Your task to perform on an android device: open a bookmark in the chrome app Image 0: 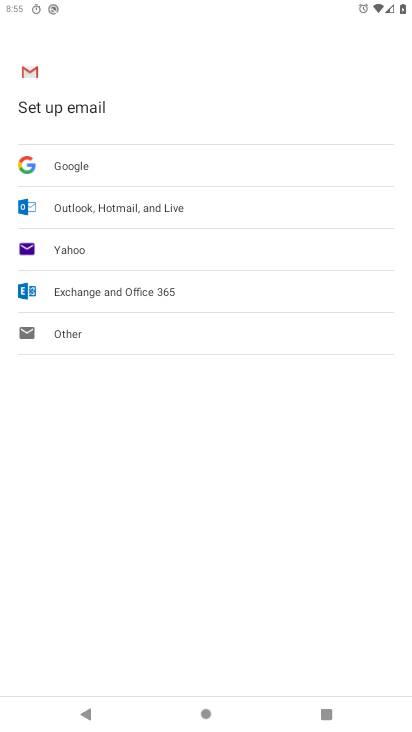
Step 0: press home button
Your task to perform on an android device: open a bookmark in the chrome app Image 1: 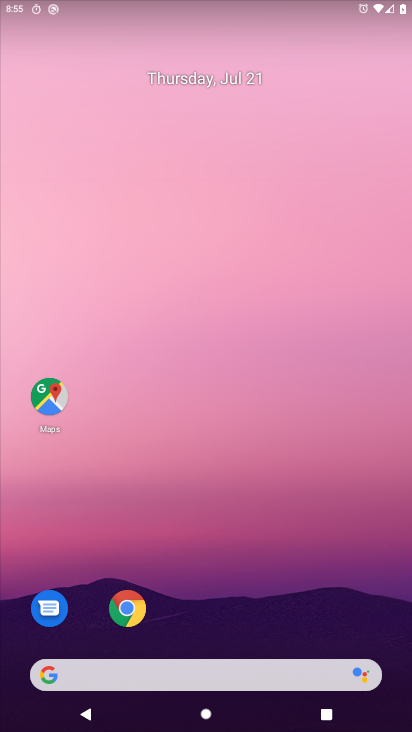
Step 1: click (122, 602)
Your task to perform on an android device: open a bookmark in the chrome app Image 2: 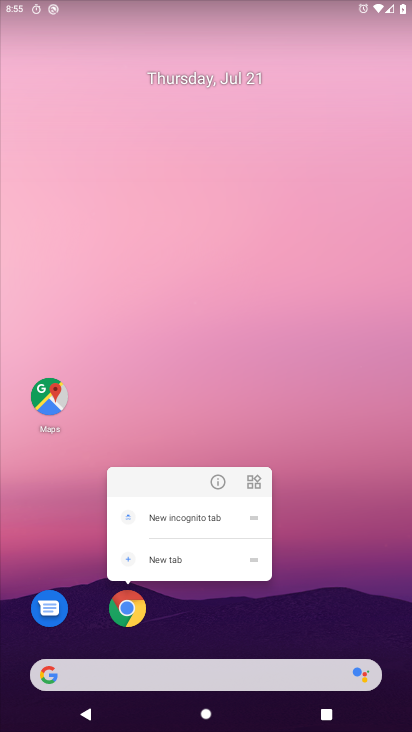
Step 2: click (120, 603)
Your task to perform on an android device: open a bookmark in the chrome app Image 3: 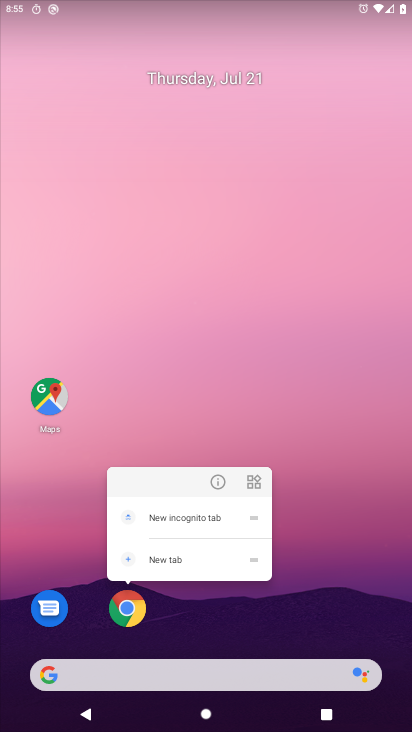
Step 3: click (154, 621)
Your task to perform on an android device: open a bookmark in the chrome app Image 4: 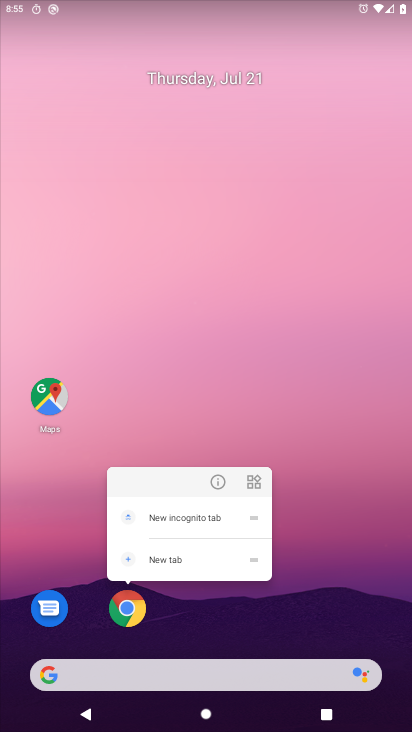
Step 4: click (117, 608)
Your task to perform on an android device: open a bookmark in the chrome app Image 5: 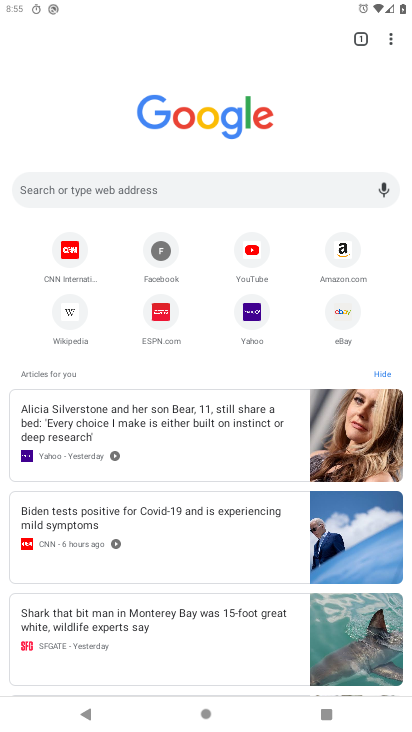
Step 5: click (389, 29)
Your task to perform on an android device: open a bookmark in the chrome app Image 6: 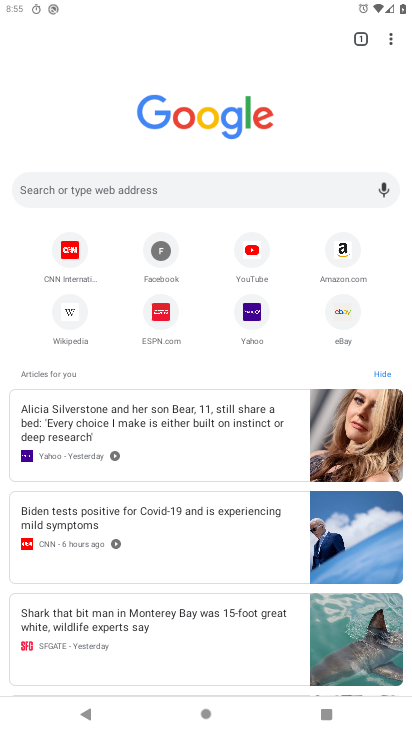
Step 6: click (382, 18)
Your task to perform on an android device: open a bookmark in the chrome app Image 7: 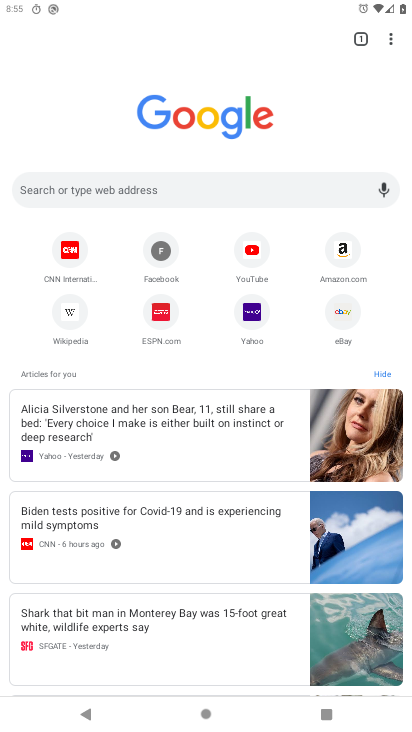
Step 7: click (391, 35)
Your task to perform on an android device: open a bookmark in the chrome app Image 8: 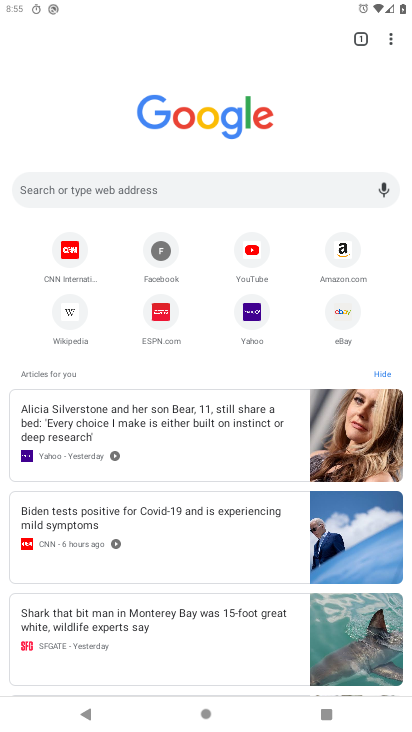
Step 8: click (392, 36)
Your task to perform on an android device: open a bookmark in the chrome app Image 9: 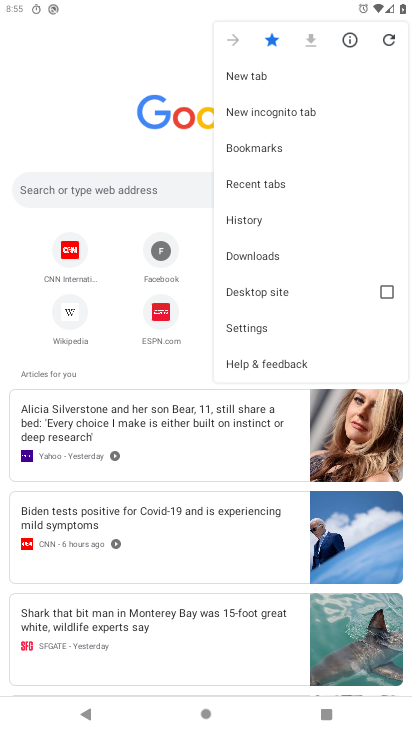
Step 9: click (250, 139)
Your task to perform on an android device: open a bookmark in the chrome app Image 10: 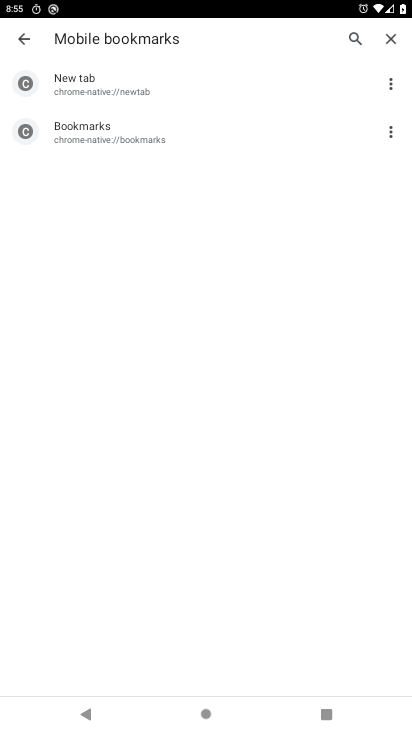
Step 10: task complete